Your task to perform on an android device: Go to notification settings Image 0: 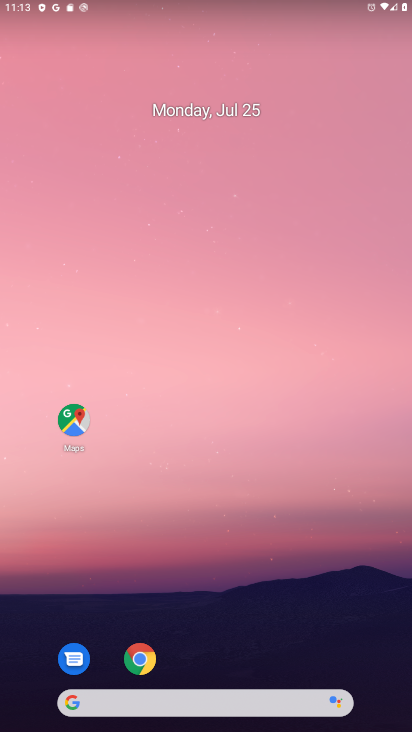
Step 0: drag from (246, 541) to (110, 57)
Your task to perform on an android device: Go to notification settings Image 1: 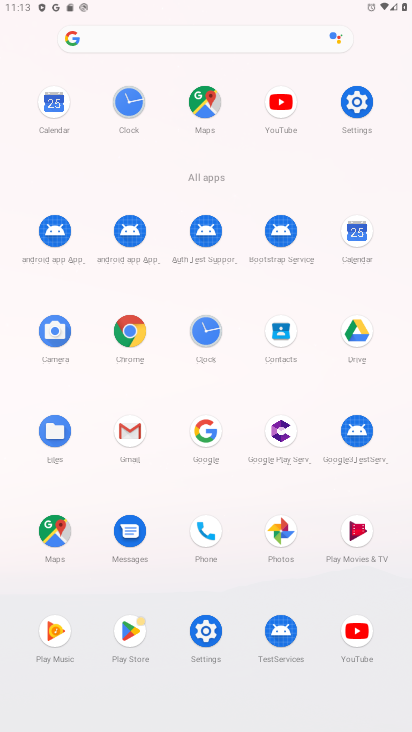
Step 1: click (353, 105)
Your task to perform on an android device: Go to notification settings Image 2: 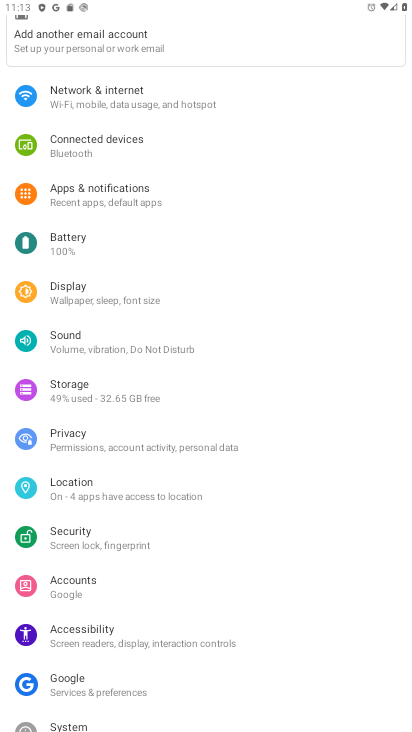
Step 2: click (119, 183)
Your task to perform on an android device: Go to notification settings Image 3: 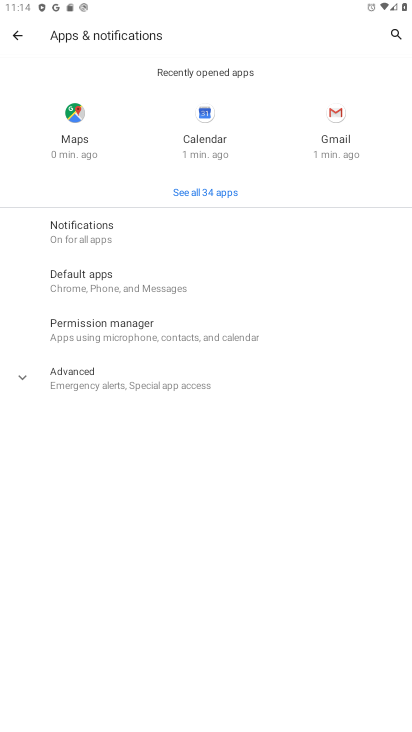
Step 3: task complete